Your task to perform on an android device: What's the weather? Image 0: 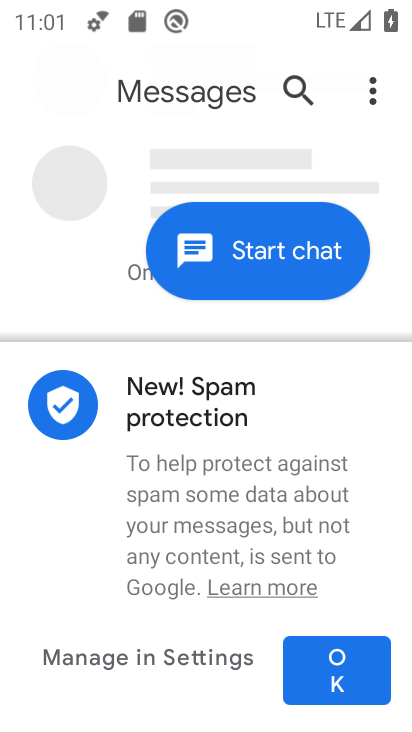
Step 0: press home button
Your task to perform on an android device: What's the weather? Image 1: 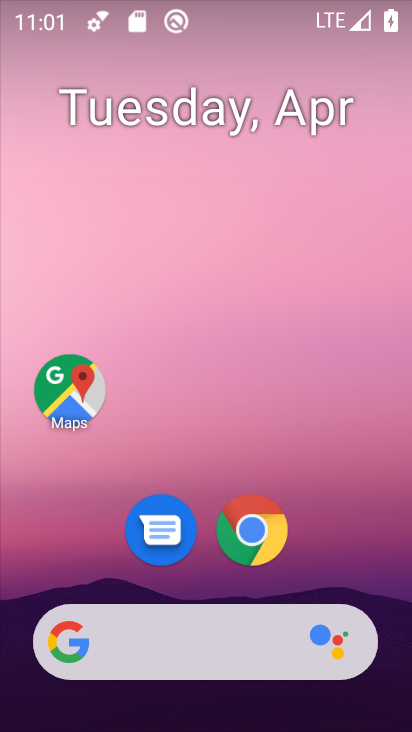
Step 1: drag from (2, 204) to (411, 184)
Your task to perform on an android device: What's the weather? Image 2: 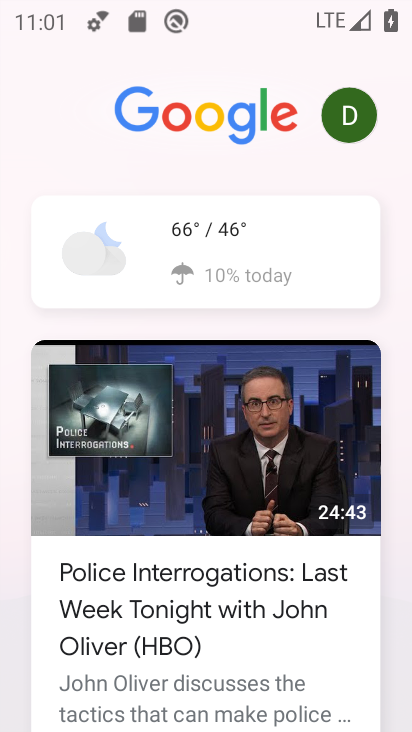
Step 2: click (206, 237)
Your task to perform on an android device: What's the weather? Image 3: 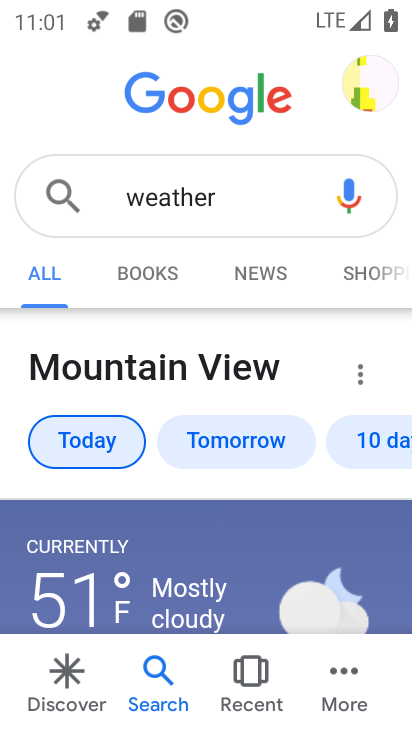
Step 3: task complete